Your task to perform on an android device: turn on priority inbox in the gmail app Image 0: 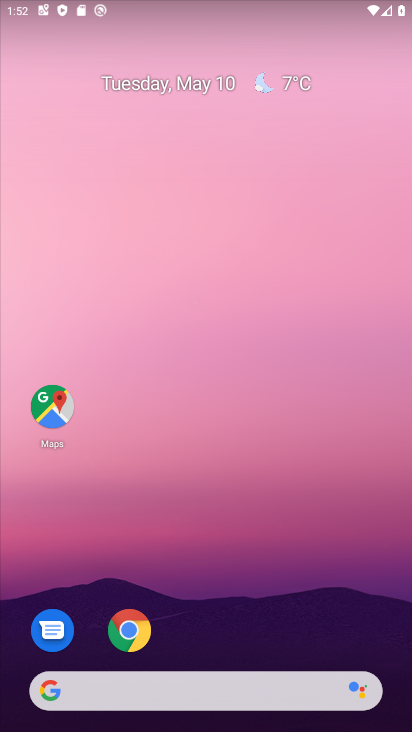
Step 0: drag from (200, 574) to (171, 32)
Your task to perform on an android device: turn on priority inbox in the gmail app Image 1: 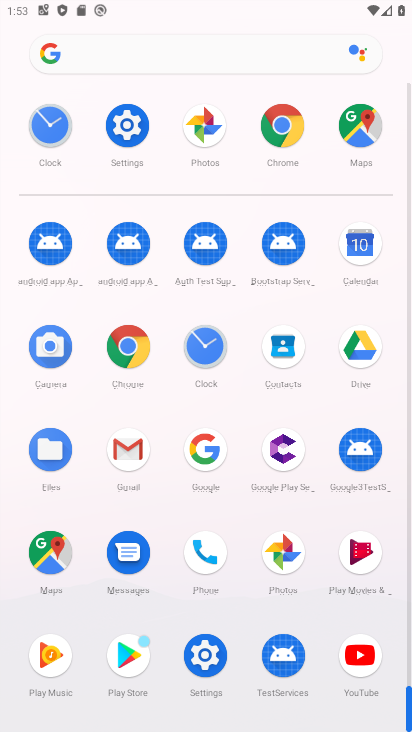
Step 1: drag from (4, 412) to (20, 164)
Your task to perform on an android device: turn on priority inbox in the gmail app Image 2: 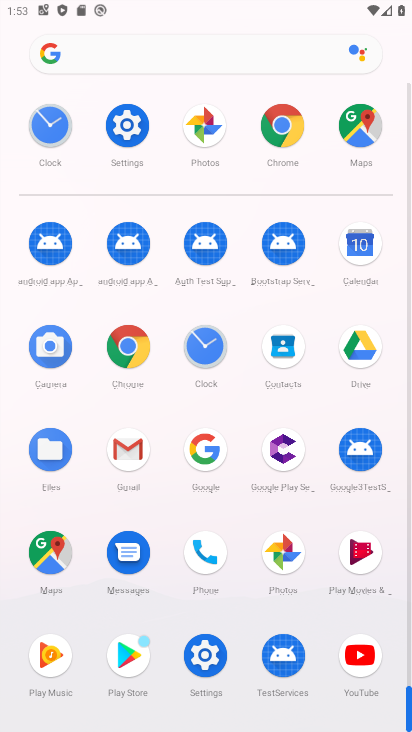
Step 2: click (130, 444)
Your task to perform on an android device: turn on priority inbox in the gmail app Image 3: 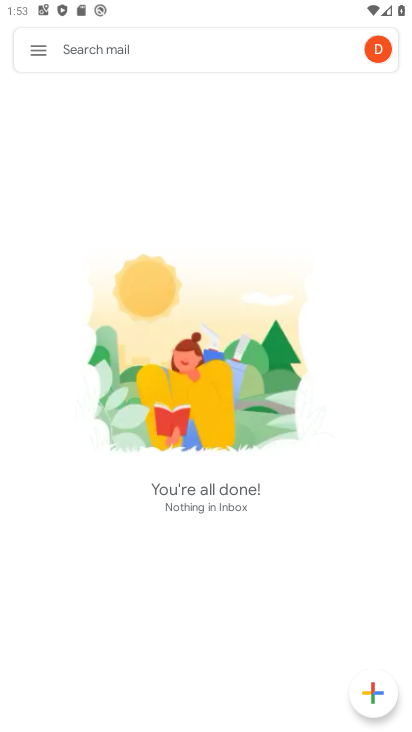
Step 3: click (36, 44)
Your task to perform on an android device: turn on priority inbox in the gmail app Image 4: 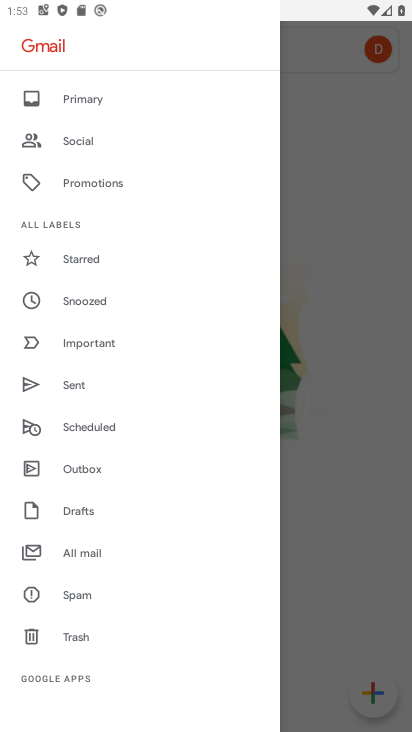
Step 4: drag from (106, 639) to (148, 349)
Your task to perform on an android device: turn on priority inbox in the gmail app Image 5: 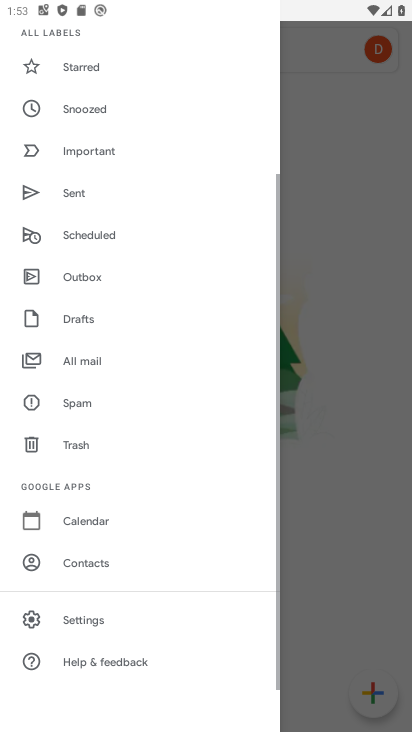
Step 5: click (73, 604)
Your task to perform on an android device: turn on priority inbox in the gmail app Image 6: 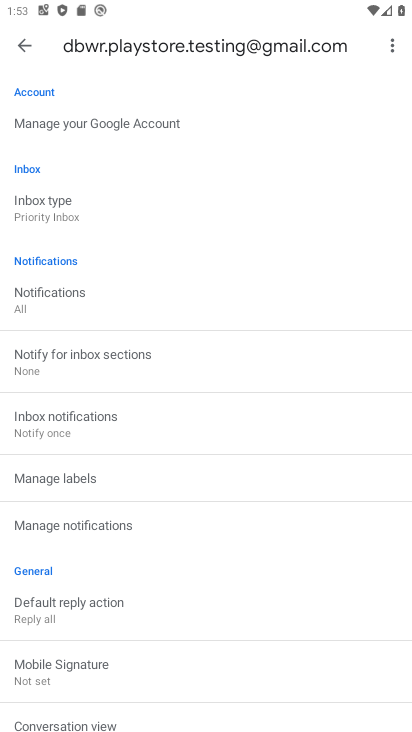
Step 6: task complete